Your task to perform on an android device: toggle javascript in the chrome app Image 0: 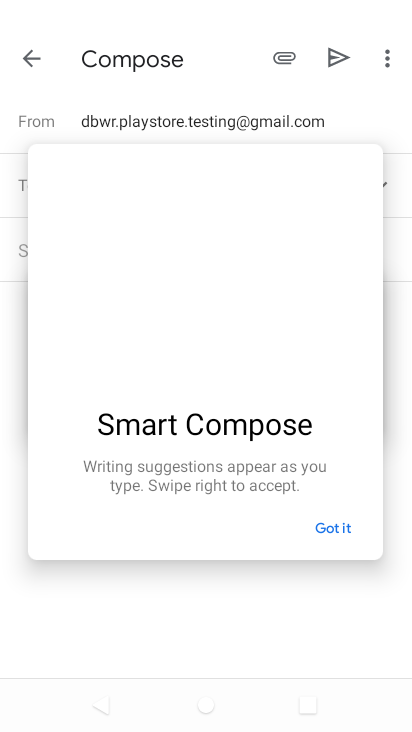
Step 0: press home button
Your task to perform on an android device: toggle javascript in the chrome app Image 1: 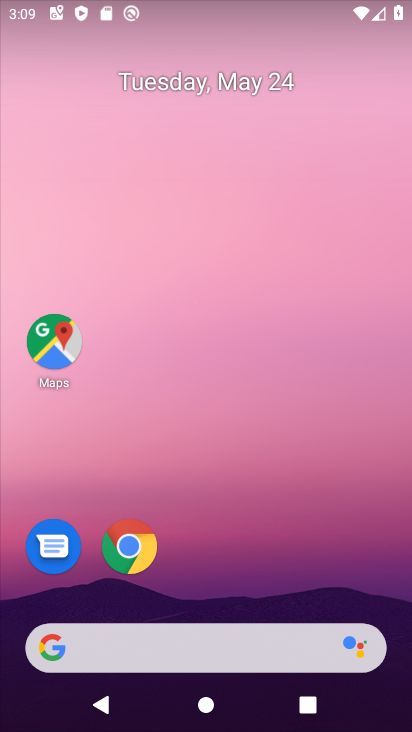
Step 1: click (139, 544)
Your task to perform on an android device: toggle javascript in the chrome app Image 2: 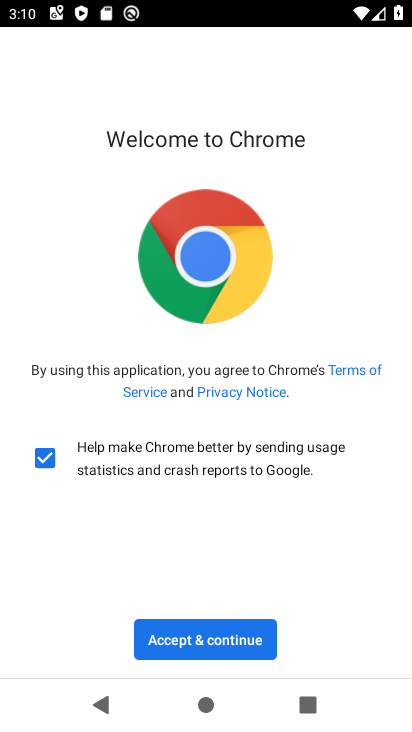
Step 2: click (244, 631)
Your task to perform on an android device: toggle javascript in the chrome app Image 3: 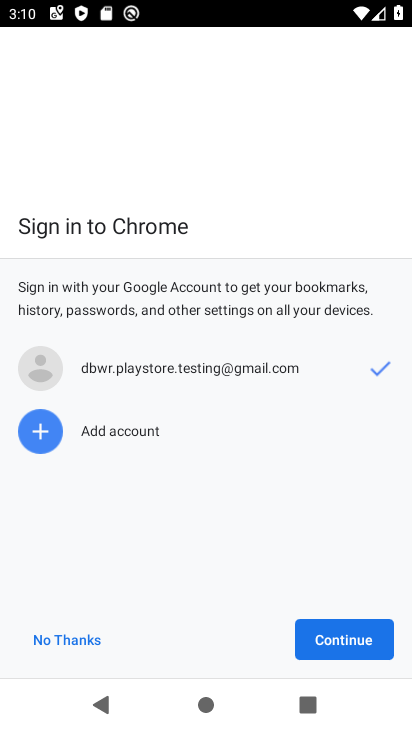
Step 3: click (350, 628)
Your task to perform on an android device: toggle javascript in the chrome app Image 4: 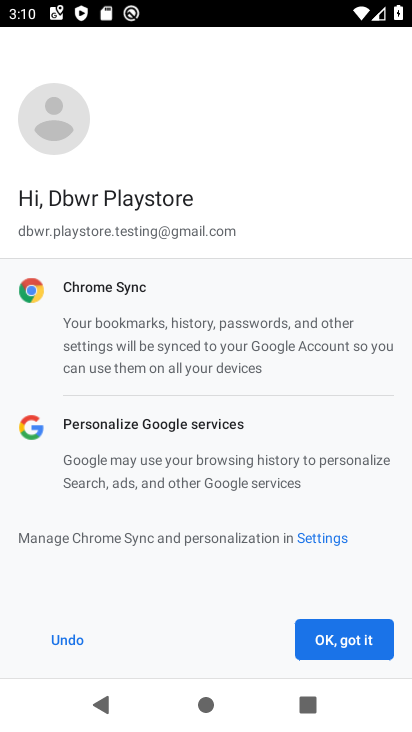
Step 4: click (337, 647)
Your task to perform on an android device: toggle javascript in the chrome app Image 5: 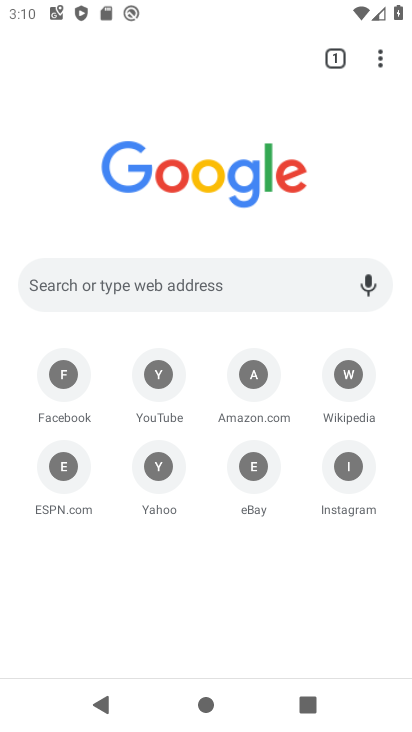
Step 5: click (386, 43)
Your task to perform on an android device: toggle javascript in the chrome app Image 6: 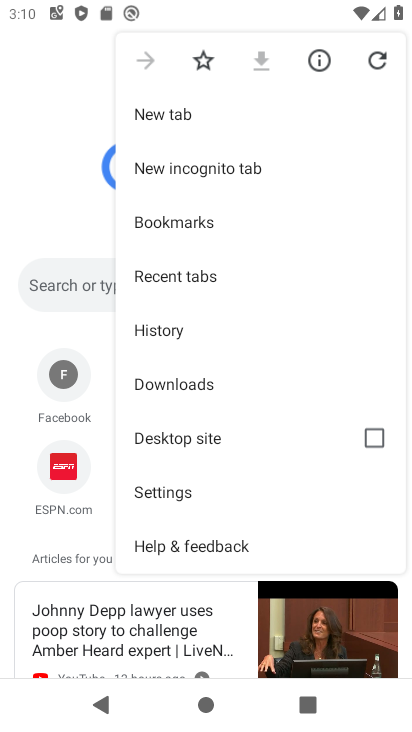
Step 6: click (204, 484)
Your task to perform on an android device: toggle javascript in the chrome app Image 7: 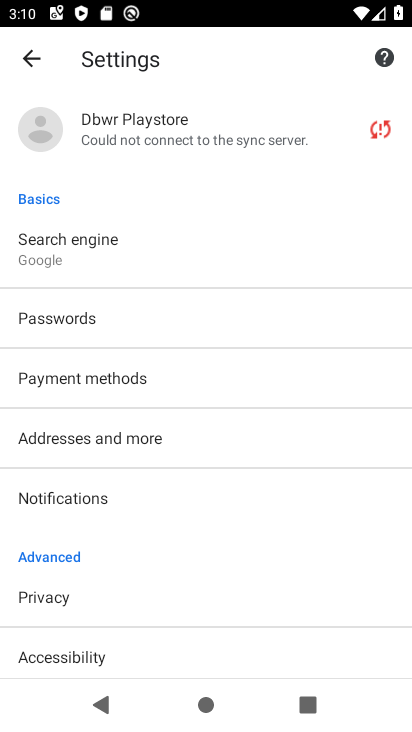
Step 7: drag from (195, 589) to (200, 181)
Your task to perform on an android device: toggle javascript in the chrome app Image 8: 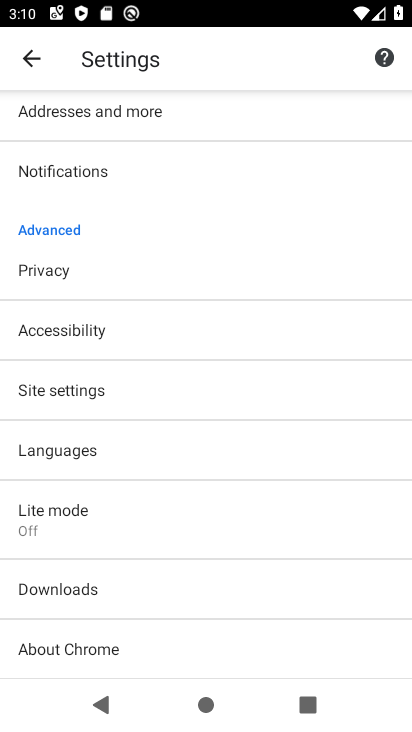
Step 8: click (145, 373)
Your task to perform on an android device: toggle javascript in the chrome app Image 9: 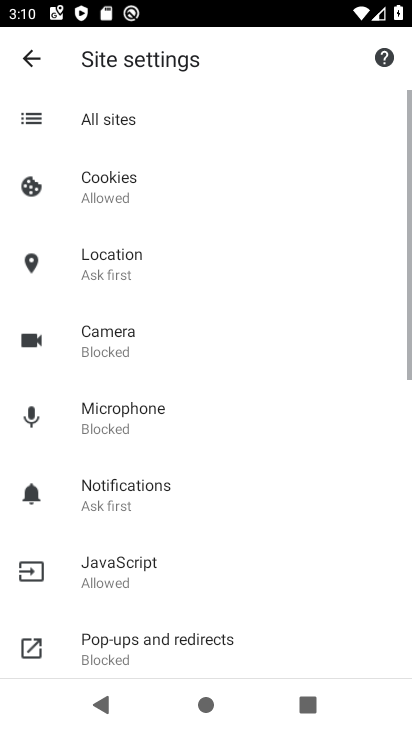
Step 9: click (172, 569)
Your task to perform on an android device: toggle javascript in the chrome app Image 10: 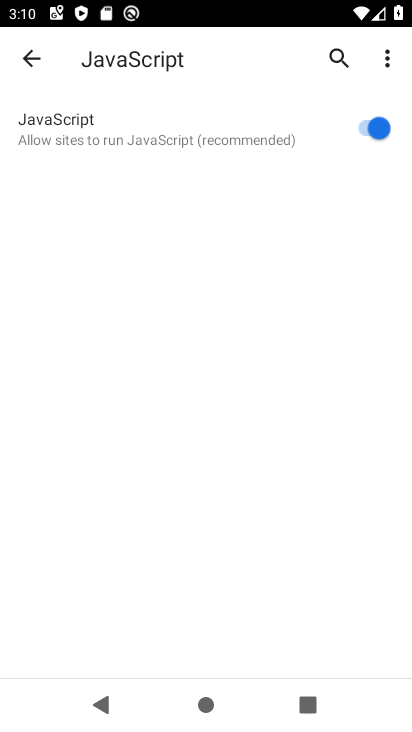
Step 10: click (370, 124)
Your task to perform on an android device: toggle javascript in the chrome app Image 11: 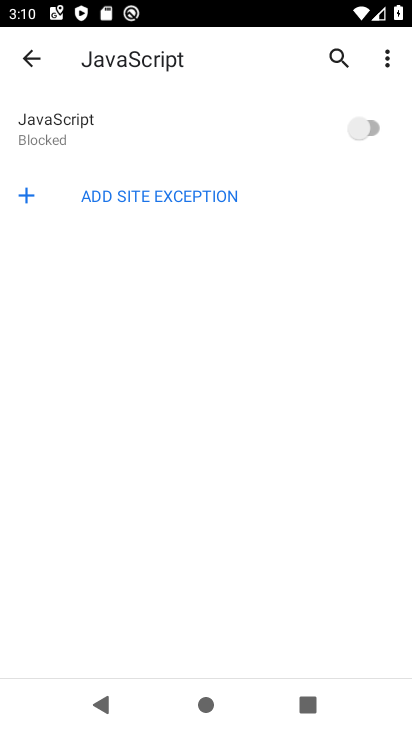
Step 11: task complete